Your task to perform on an android device: Open calendar and show me the fourth week of next month Image 0: 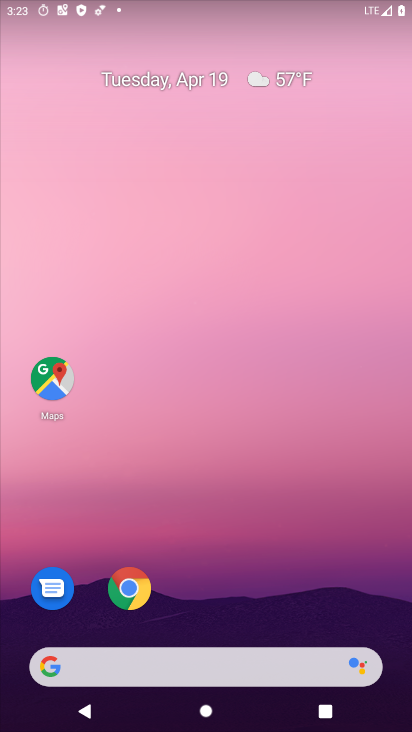
Step 0: drag from (203, 643) to (388, 125)
Your task to perform on an android device: Open calendar and show me the fourth week of next month Image 1: 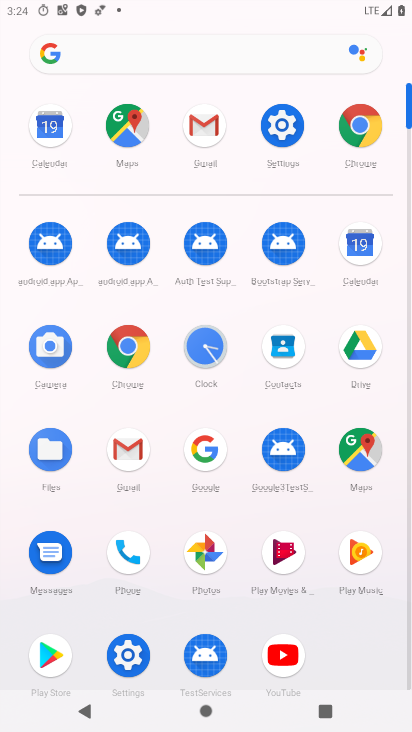
Step 1: click (350, 248)
Your task to perform on an android device: Open calendar and show me the fourth week of next month Image 2: 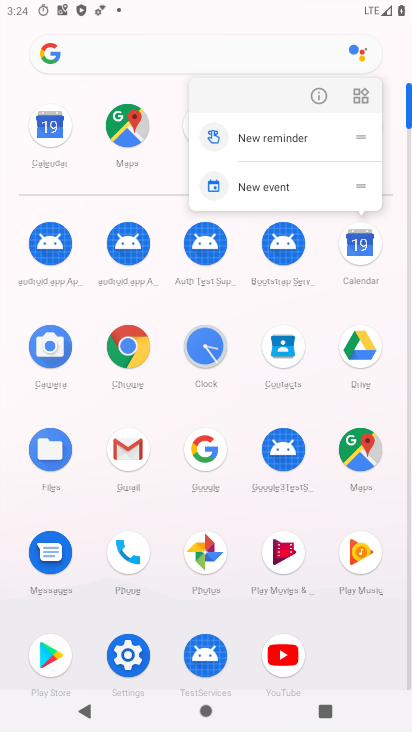
Step 2: click (315, 100)
Your task to perform on an android device: Open calendar and show me the fourth week of next month Image 3: 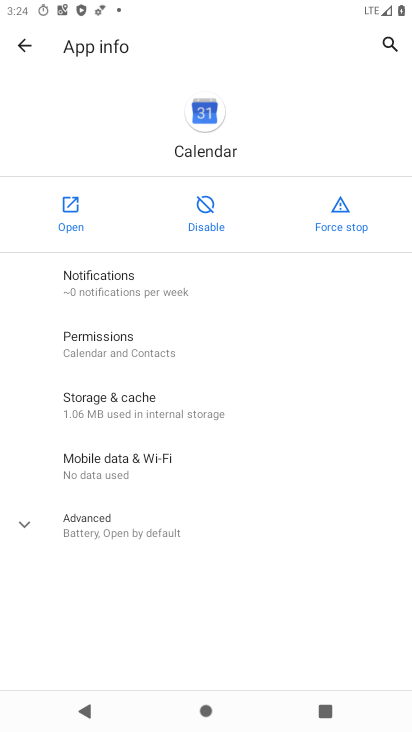
Step 3: click (75, 214)
Your task to perform on an android device: Open calendar and show me the fourth week of next month Image 4: 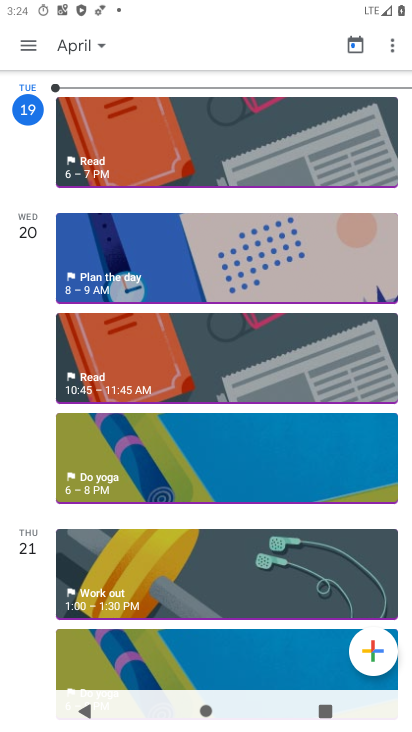
Step 4: click (82, 57)
Your task to perform on an android device: Open calendar and show me the fourth week of next month Image 5: 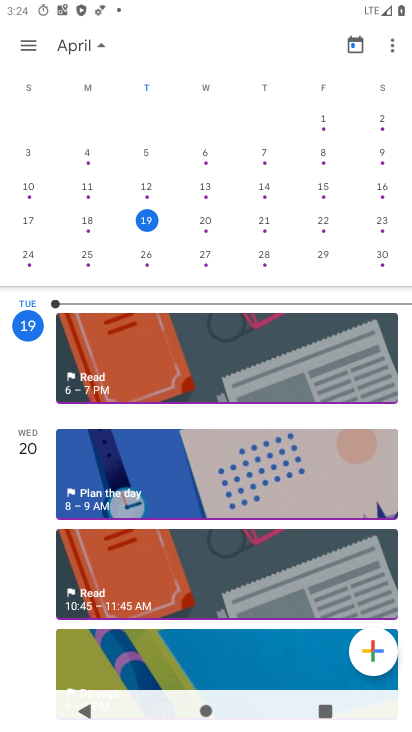
Step 5: drag from (353, 215) to (19, 295)
Your task to perform on an android device: Open calendar and show me the fourth week of next month Image 6: 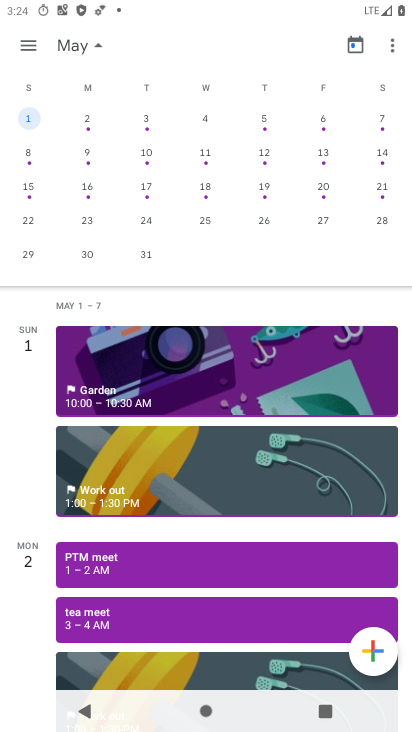
Step 6: click (265, 217)
Your task to perform on an android device: Open calendar and show me the fourth week of next month Image 7: 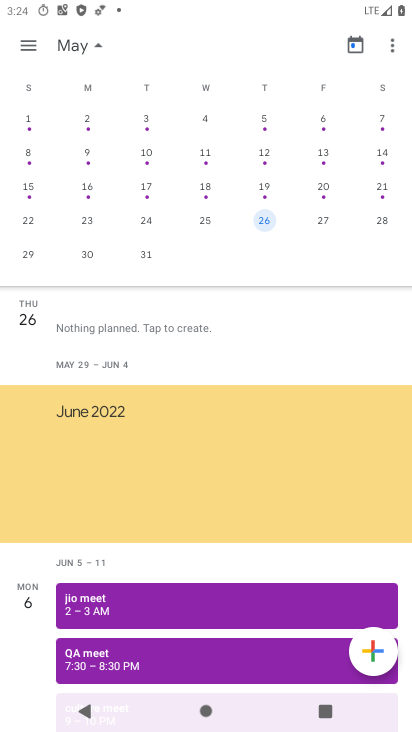
Step 7: task complete